Your task to perform on an android device: set an alarm Image 0: 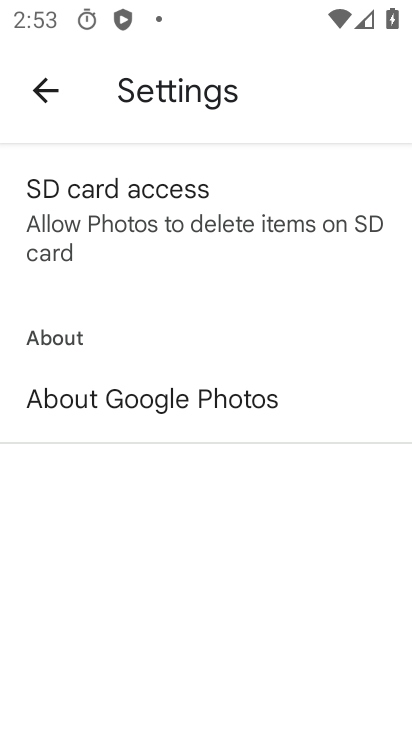
Step 0: press home button
Your task to perform on an android device: set an alarm Image 1: 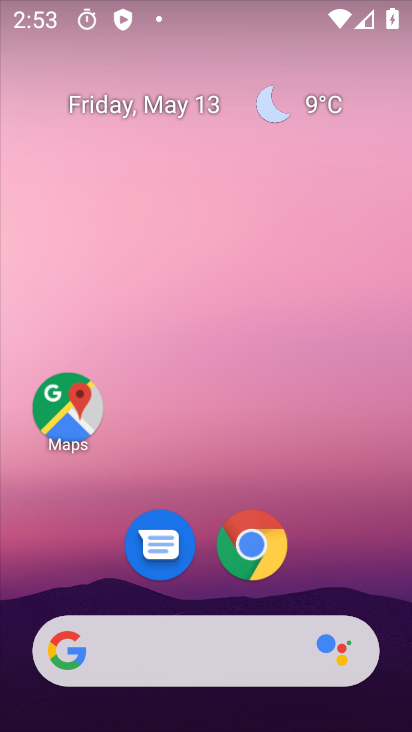
Step 1: drag from (328, 561) to (328, 108)
Your task to perform on an android device: set an alarm Image 2: 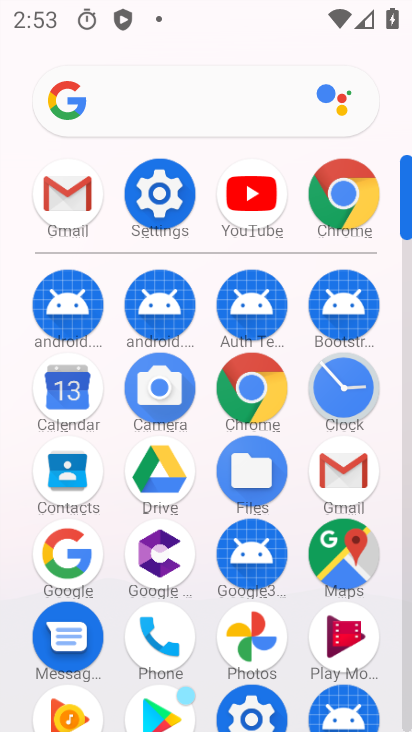
Step 2: click (332, 380)
Your task to perform on an android device: set an alarm Image 3: 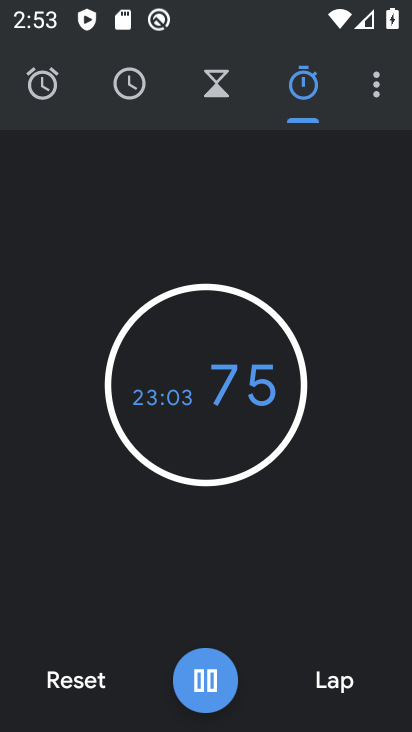
Step 3: click (49, 77)
Your task to perform on an android device: set an alarm Image 4: 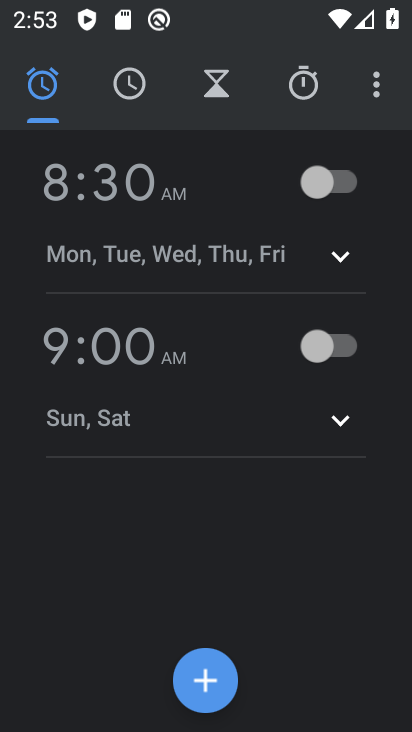
Step 4: click (113, 360)
Your task to perform on an android device: set an alarm Image 5: 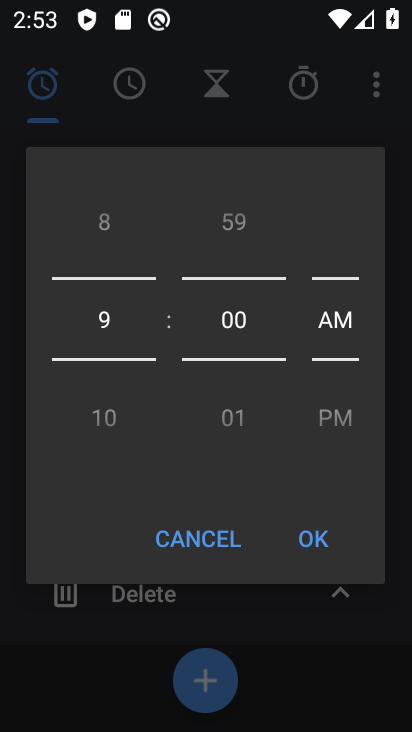
Step 5: drag from (98, 211) to (84, 367)
Your task to perform on an android device: set an alarm Image 6: 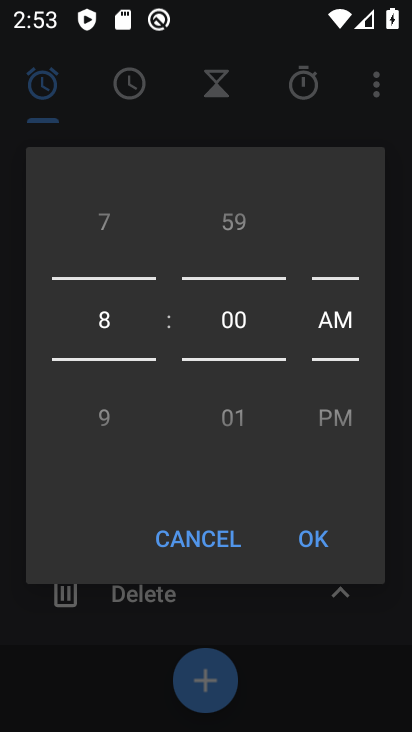
Step 6: drag from (324, 408) to (320, 313)
Your task to perform on an android device: set an alarm Image 7: 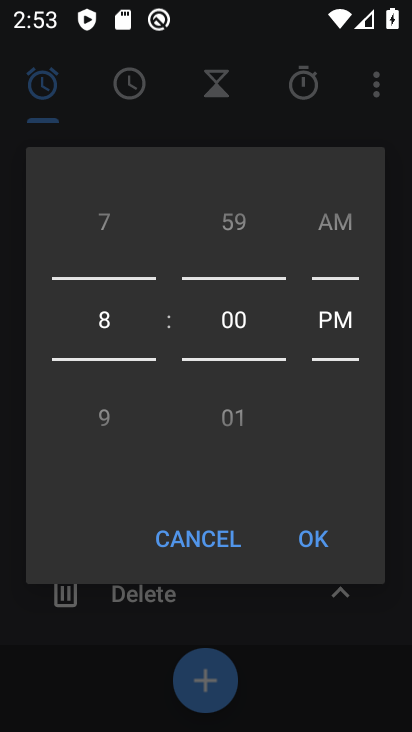
Step 7: click (324, 530)
Your task to perform on an android device: set an alarm Image 8: 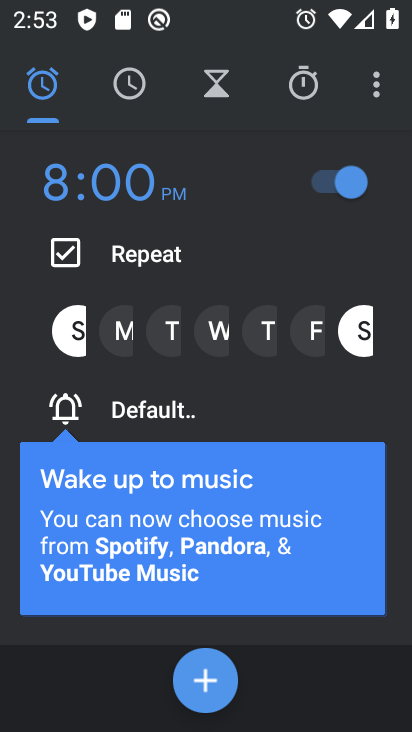
Step 8: click (306, 417)
Your task to perform on an android device: set an alarm Image 9: 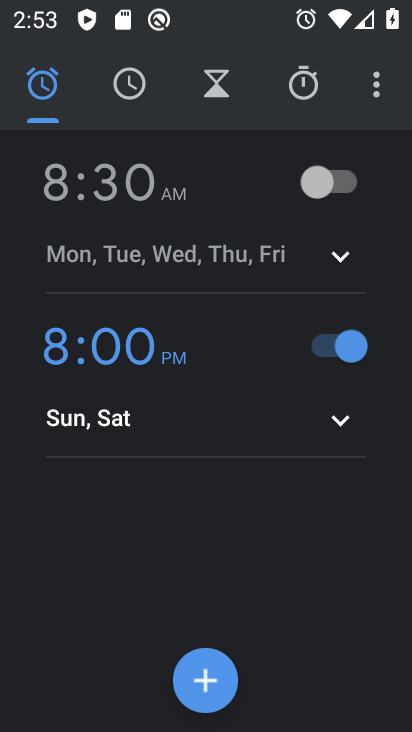
Step 9: task complete